Your task to perform on an android device: turn off improve location accuracy Image 0: 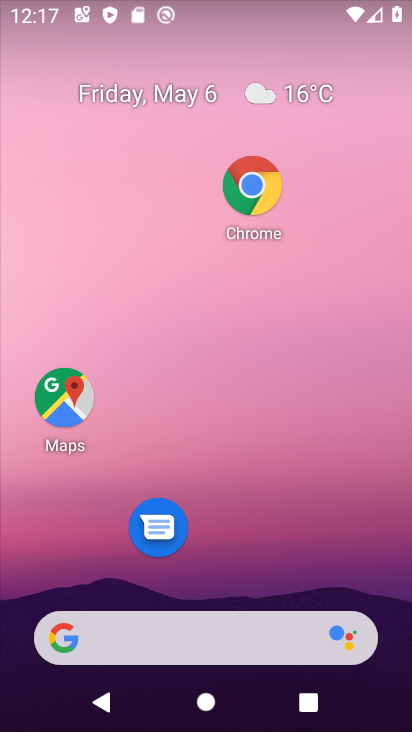
Step 0: drag from (228, 598) to (331, 50)
Your task to perform on an android device: turn off improve location accuracy Image 1: 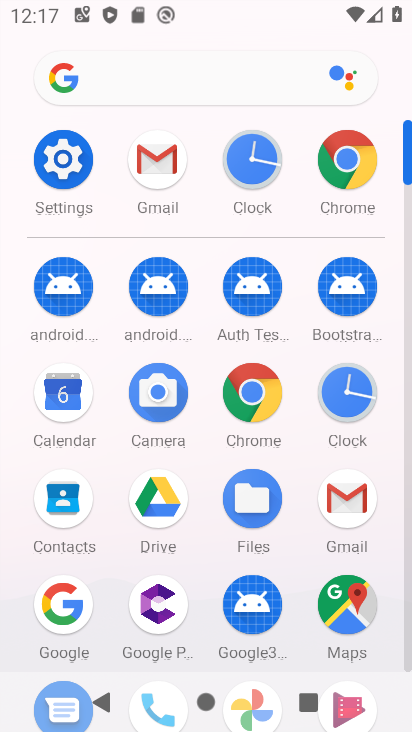
Step 1: click (68, 158)
Your task to perform on an android device: turn off improve location accuracy Image 2: 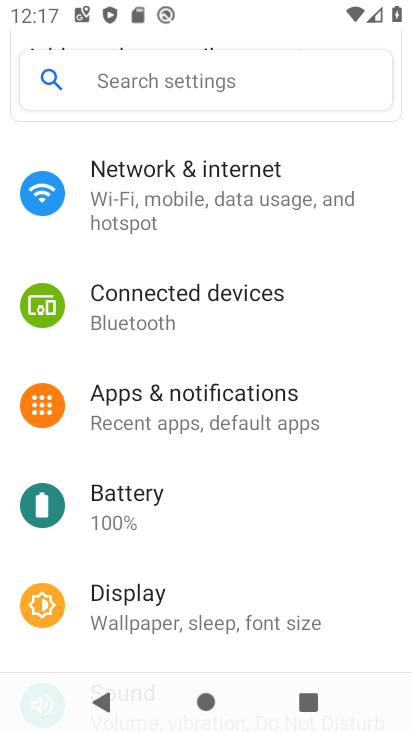
Step 2: drag from (176, 551) to (252, 319)
Your task to perform on an android device: turn off improve location accuracy Image 3: 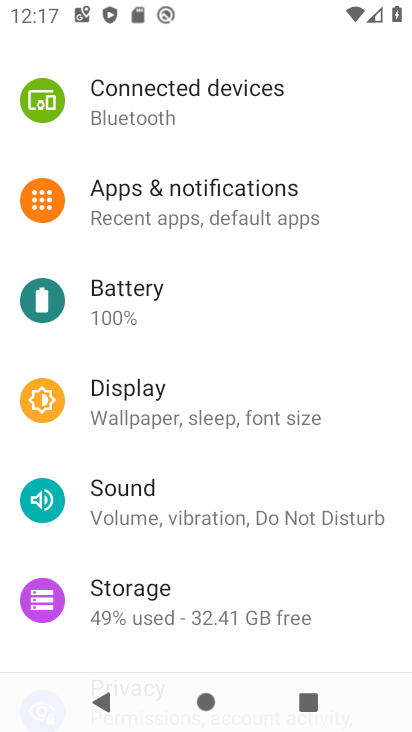
Step 3: drag from (189, 537) to (251, 134)
Your task to perform on an android device: turn off improve location accuracy Image 4: 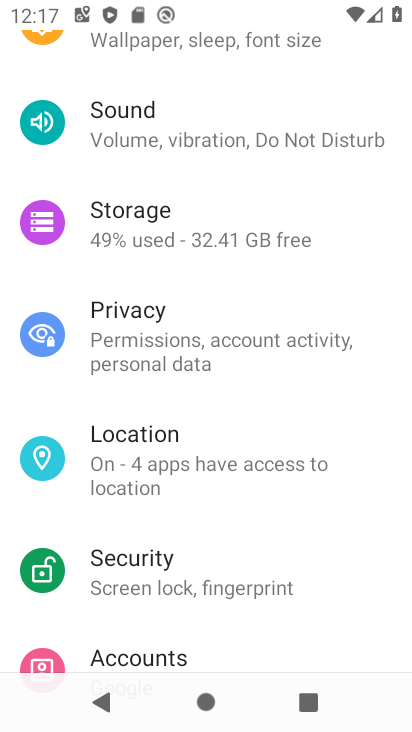
Step 4: click (190, 468)
Your task to perform on an android device: turn off improve location accuracy Image 5: 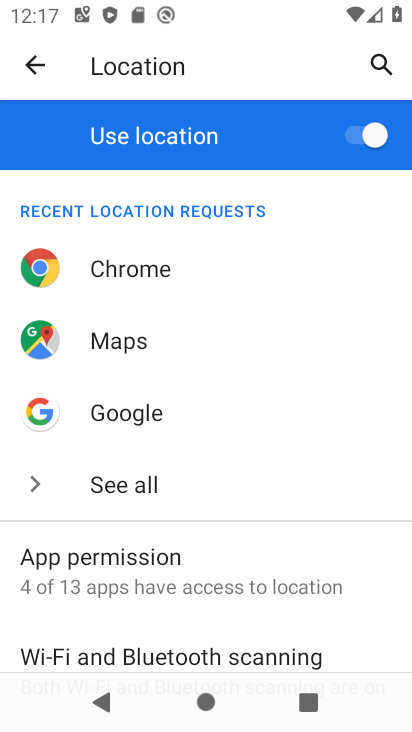
Step 5: drag from (144, 573) to (216, 186)
Your task to perform on an android device: turn off improve location accuracy Image 6: 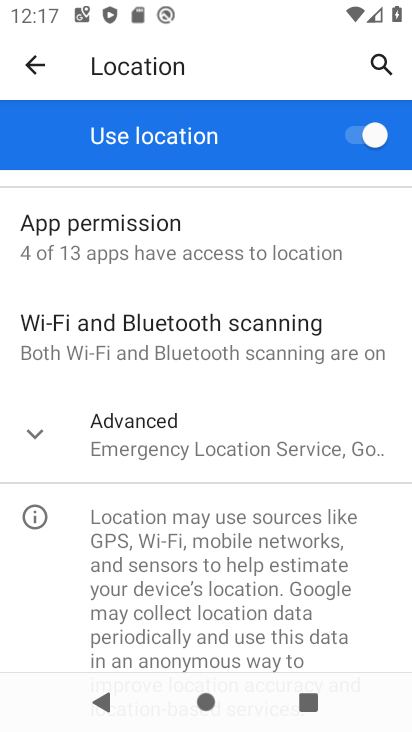
Step 6: click (187, 449)
Your task to perform on an android device: turn off improve location accuracy Image 7: 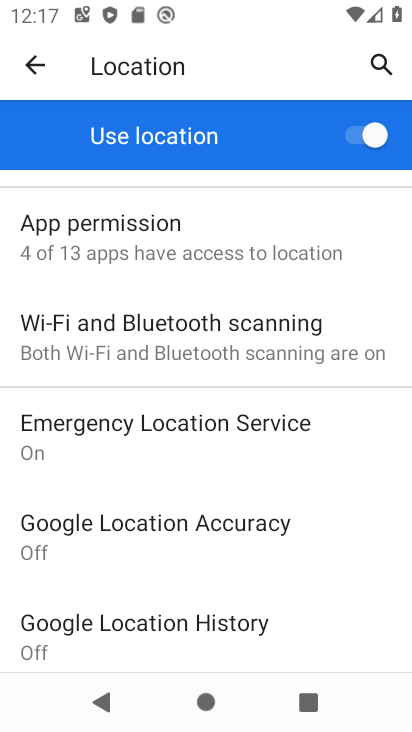
Step 7: click (146, 521)
Your task to perform on an android device: turn off improve location accuracy Image 8: 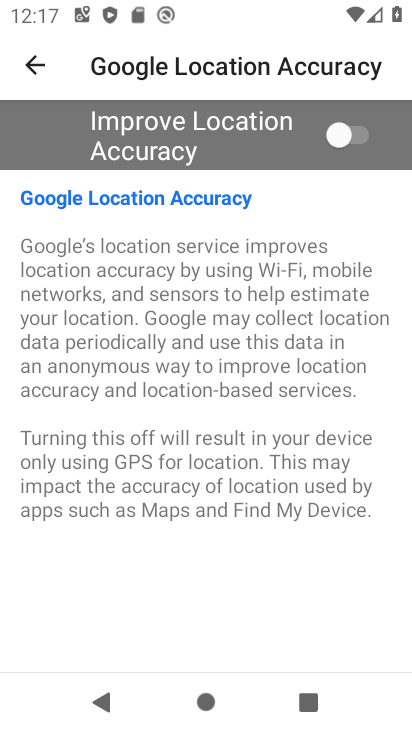
Step 8: task complete